Your task to perform on an android device: move a message to another label in the gmail app Image 0: 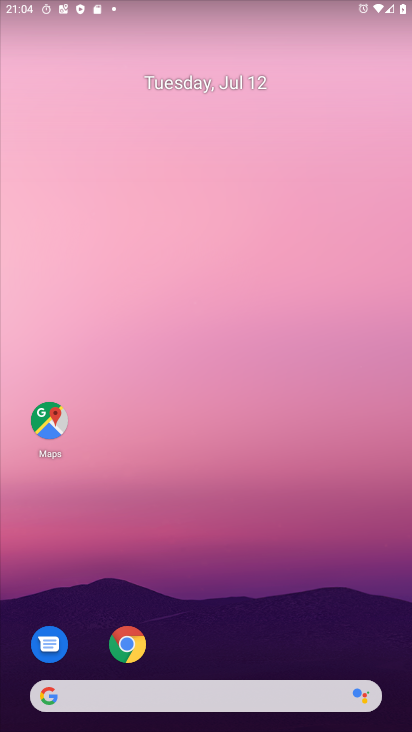
Step 0: drag from (13, 698) to (218, 182)
Your task to perform on an android device: move a message to another label in the gmail app Image 1: 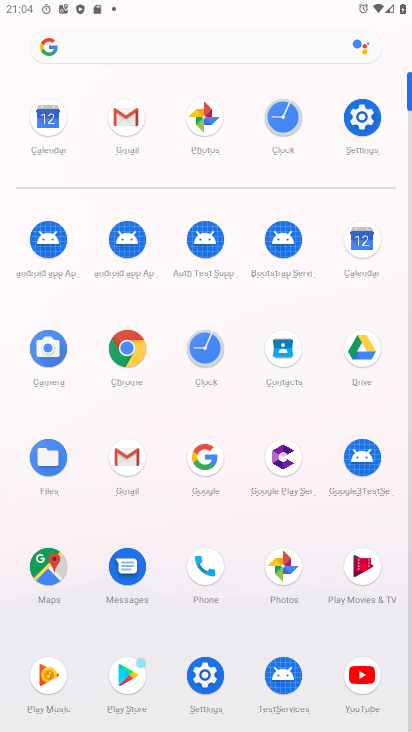
Step 1: click (136, 459)
Your task to perform on an android device: move a message to another label in the gmail app Image 2: 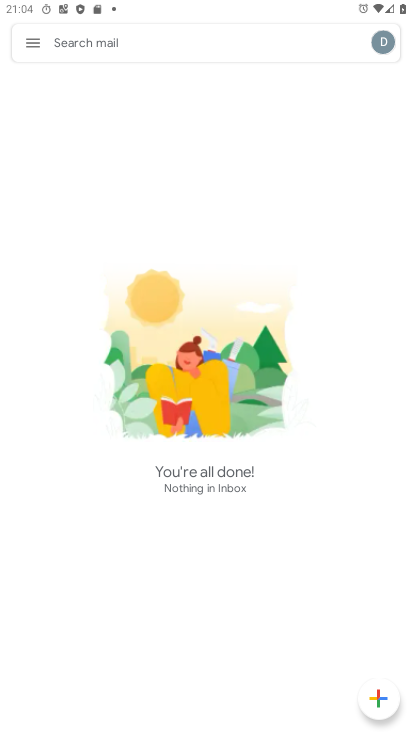
Step 2: click (29, 37)
Your task to perform on an android device: move a message to another label in the gmail app Image 3: 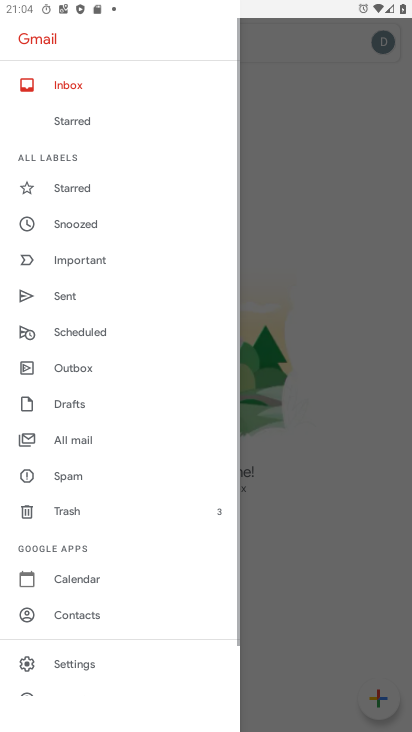
Step 3: click (89, 75)
Your task to perform on an android device: move a message to another label in the gmail app Image 4: 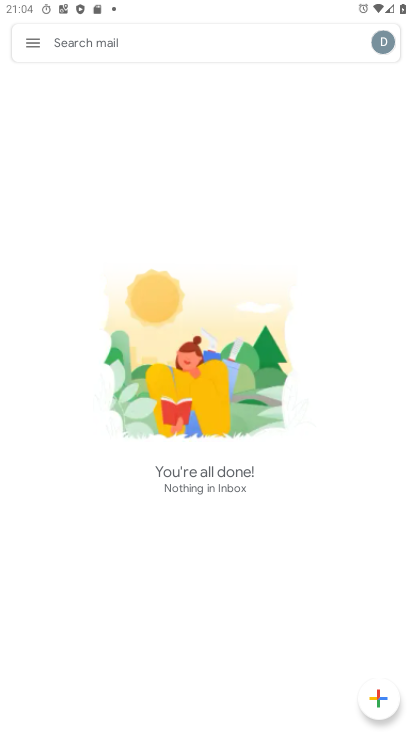
Step 4: task complete